Your task to perform on an android device: turn on location history Image 0: 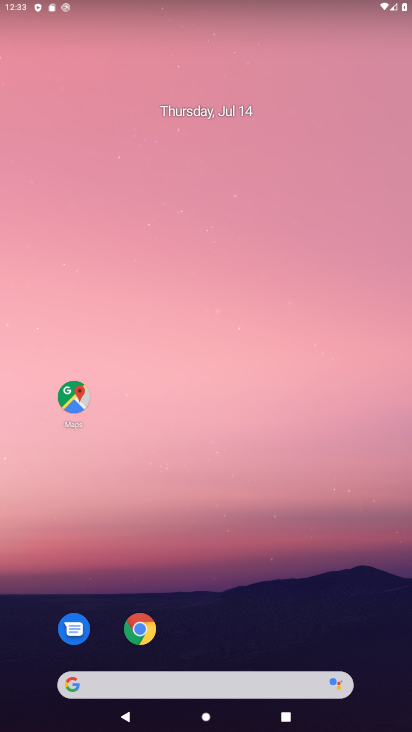
Step 0: drag from (229, 632) to (240, 140)
Your task to perform on an android device: turn on location history Image 1: 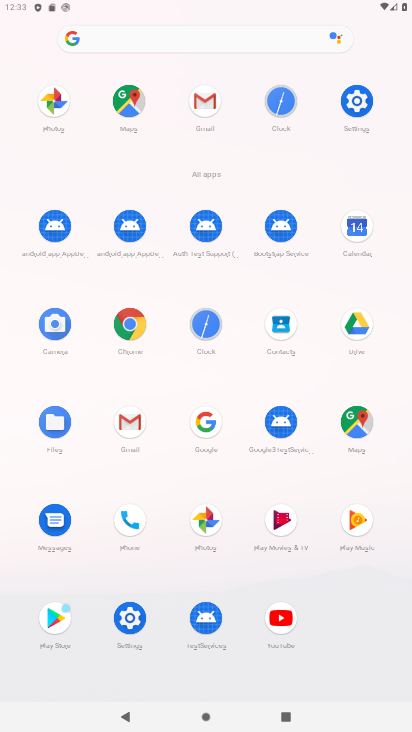
Step 1: click (356, 99)
Your task to perform on an android device: turn on location history Image 2: 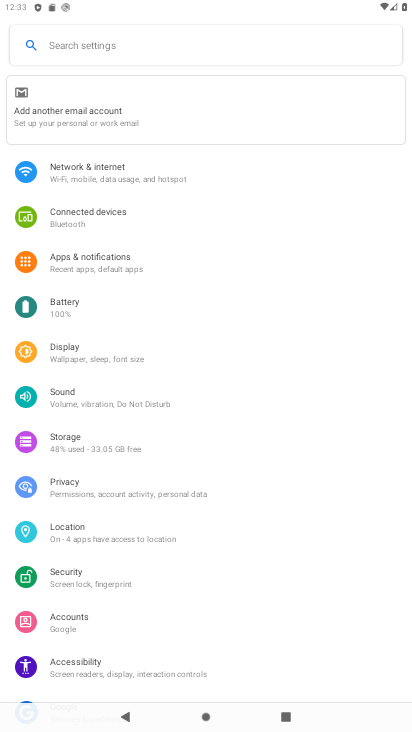
Step 2: click (95, 537)
Your task to perform on an android device: turn on location history Image 3: 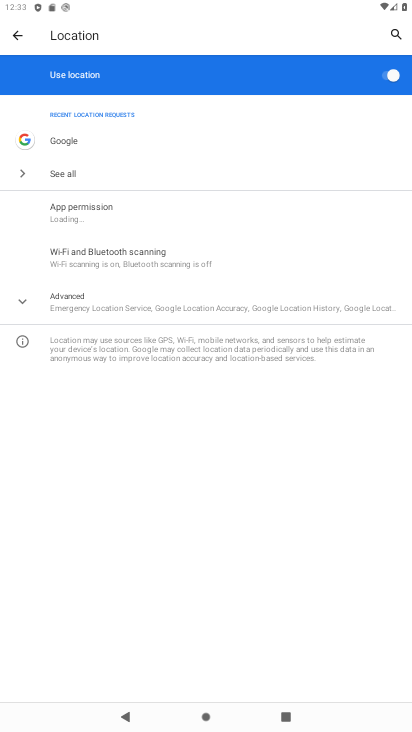
Step 3: click (83, 305)
Your task to perform on an android device: turn on location history Image 4: 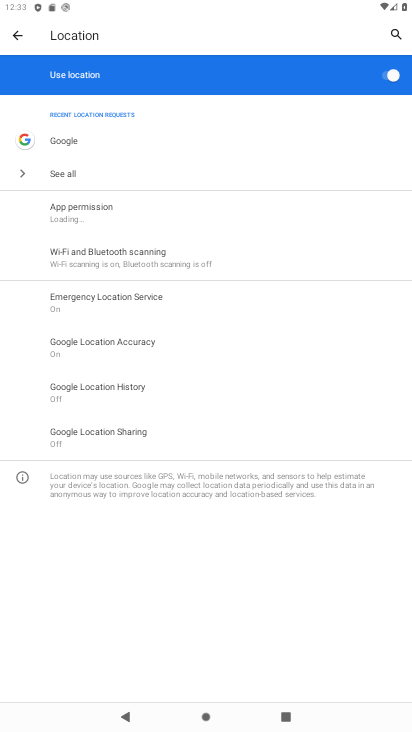
Step 4: click (135, 385)
Your task to perform on an android device: turn on location history Image 5: 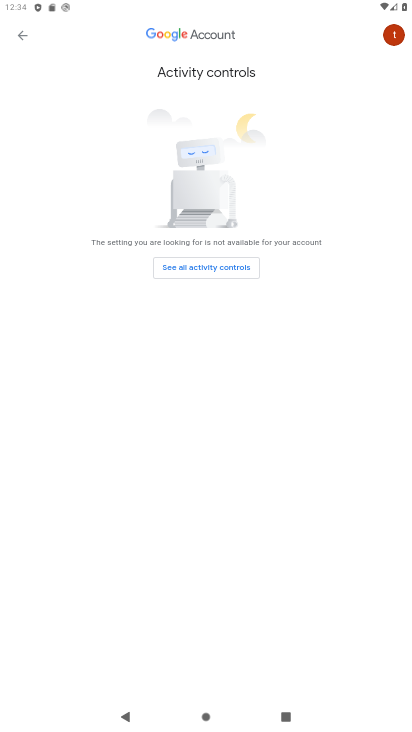
Step 5: task complete